Your task to perform on an android device: Do I have any events tomorrow? Image 0: 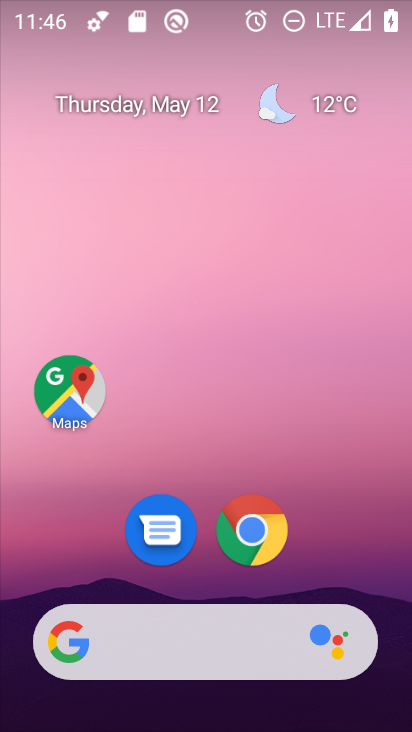
Step 0: press home button
Your task to perform on an android device: Do I have any events tomorrow? Image 1: 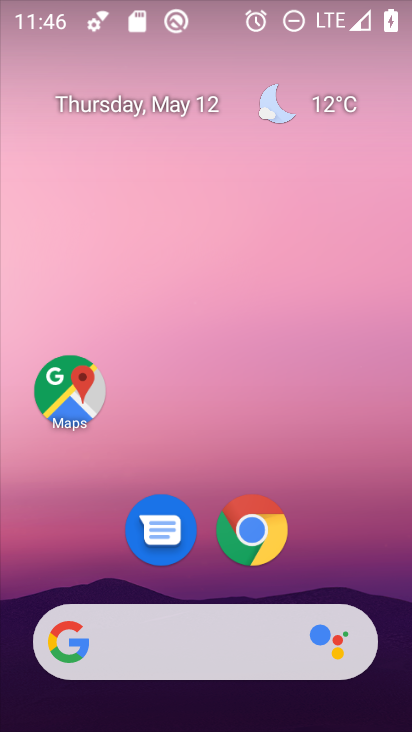
Step 1: drag from (195, 554) to (273, 222)
Your task to perform on an android device: Do I have any events tomorrow? Image 2: 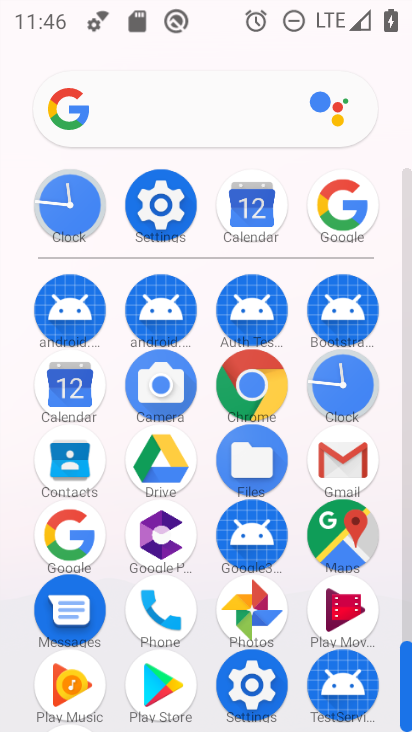
Step 2: click (262, 214)
Your task to perform on an android device: Do I have any events tomorrow? Image 3: 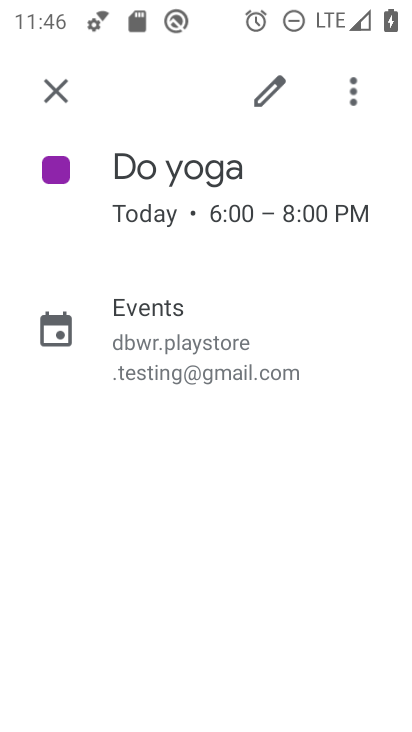
Step 3: click (46, 79)
Your task to perform on an android device: Do I have any events tomorrow? Image 4: 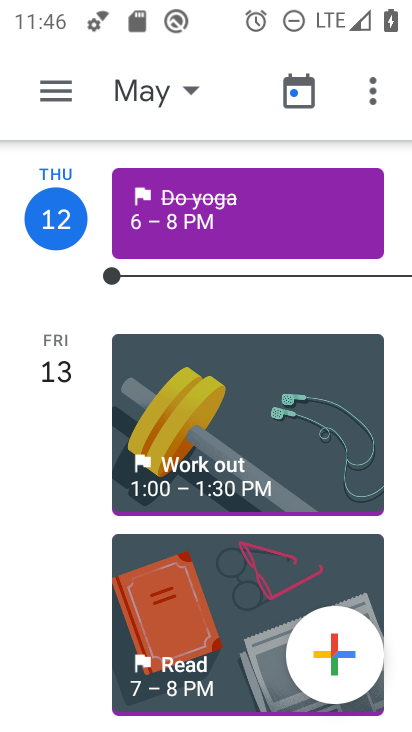
Step 4: click (156, 92)
Your task to perform on an android device: Do I have any events tomorrow? Image 5: 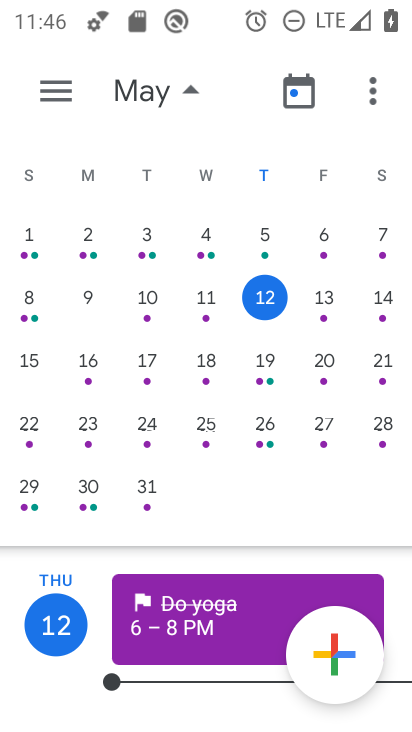
Step 5: click (325, 294)
Your task to perform on an android device: Do I have any events tomorrow? Image 6: 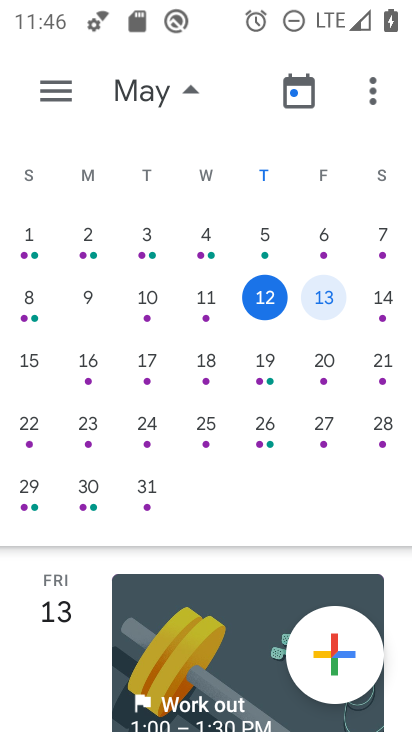
Step 6: click (61, 86)
Your task to perform on an android device: Do I have any events tomorrow? Image 7: 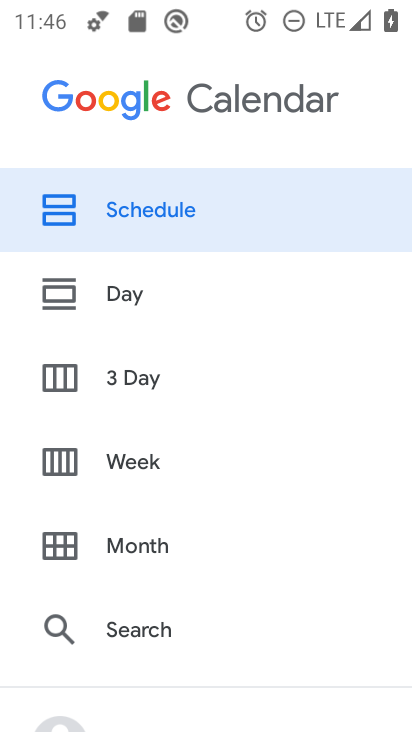
Step 7: click (159, 210)
Your task to perform on an android device: Do I have any events tomorrow? Image 8: 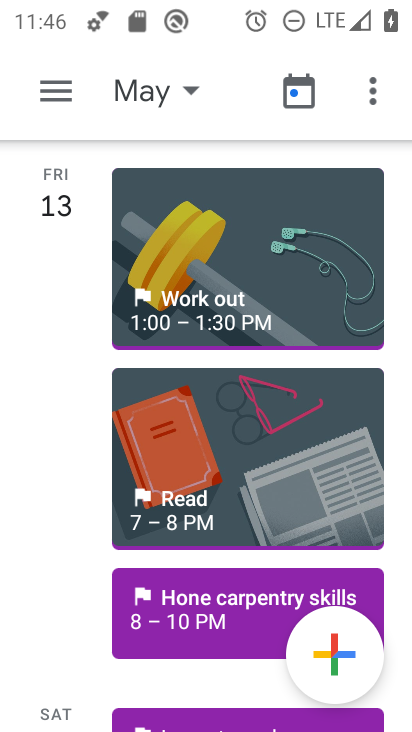
Step 8: click (201, 608)
Your task to perform on an android device: Do I have any events tomorrow? Image 9: 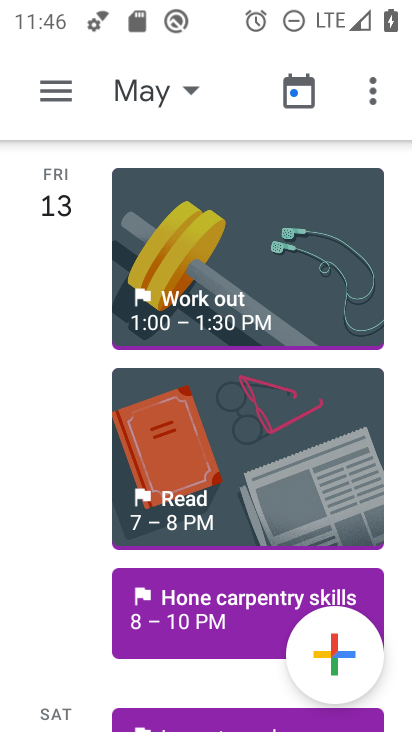
Step 9: click (191, 603)
Your task to perform on an android device: Do I have any events tomorrow? Image 10: 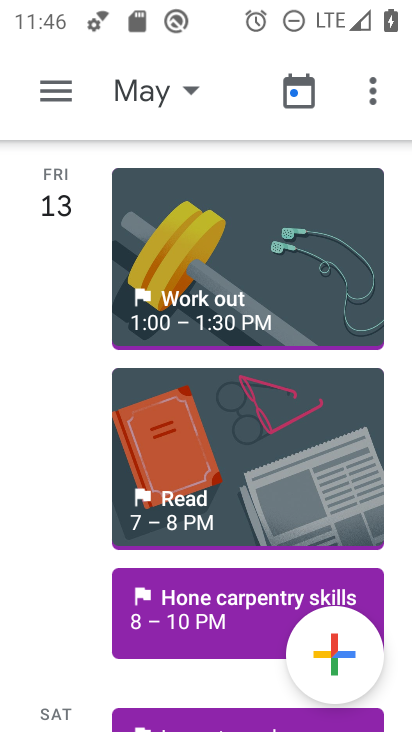
Step 10: click (245, 597)
Your task to perform on an android device: Do I have any events tomorrow? Image 11: 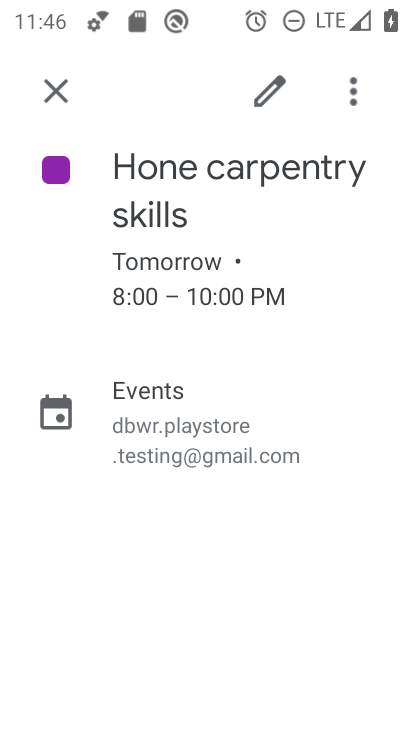
Step 11: task complete